Your task to perform on an android device: Search for lenovo thinkpad on costco, select the first entry, and add it to the cart. Image 0: 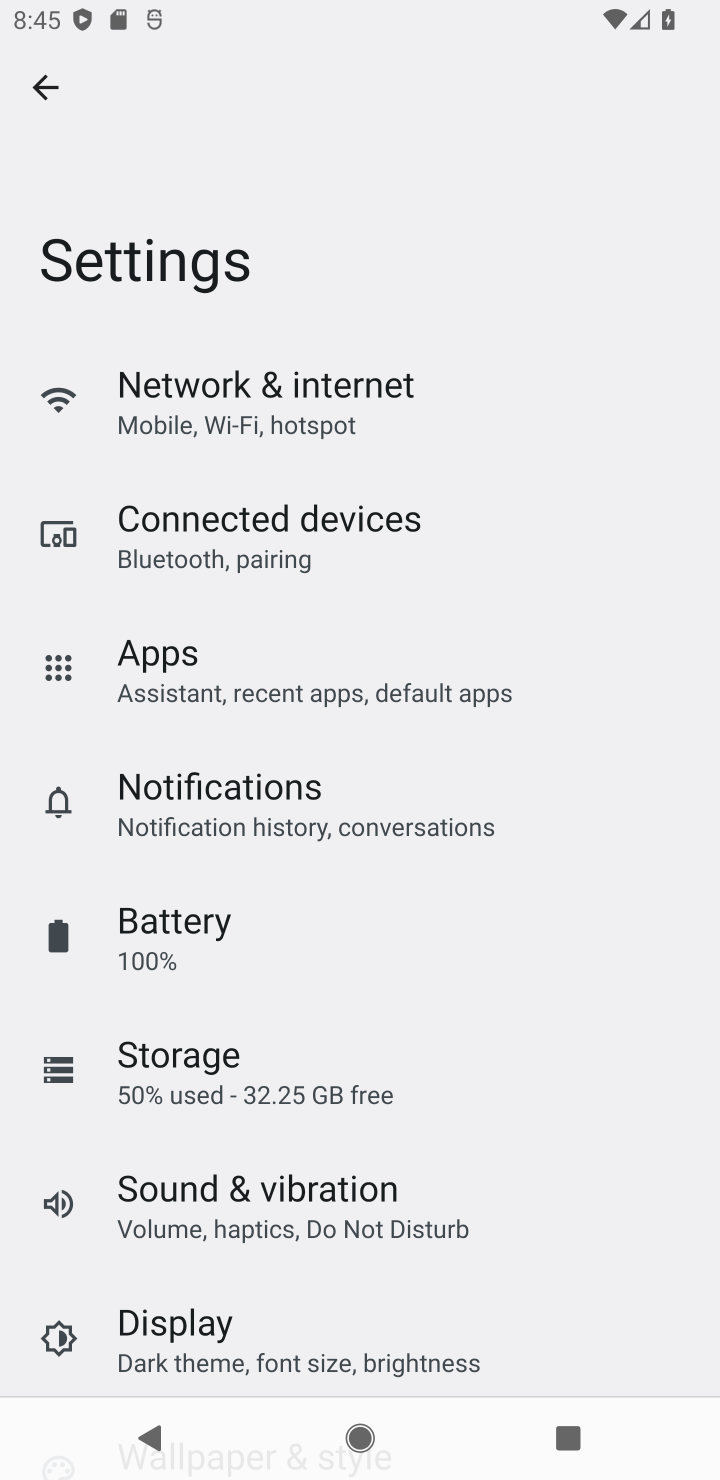
Step 0: press home button
Your task to perform on an android device: Search for lenovo thinkpad on costco, select the first entry, and add it to the cart. Image 1: 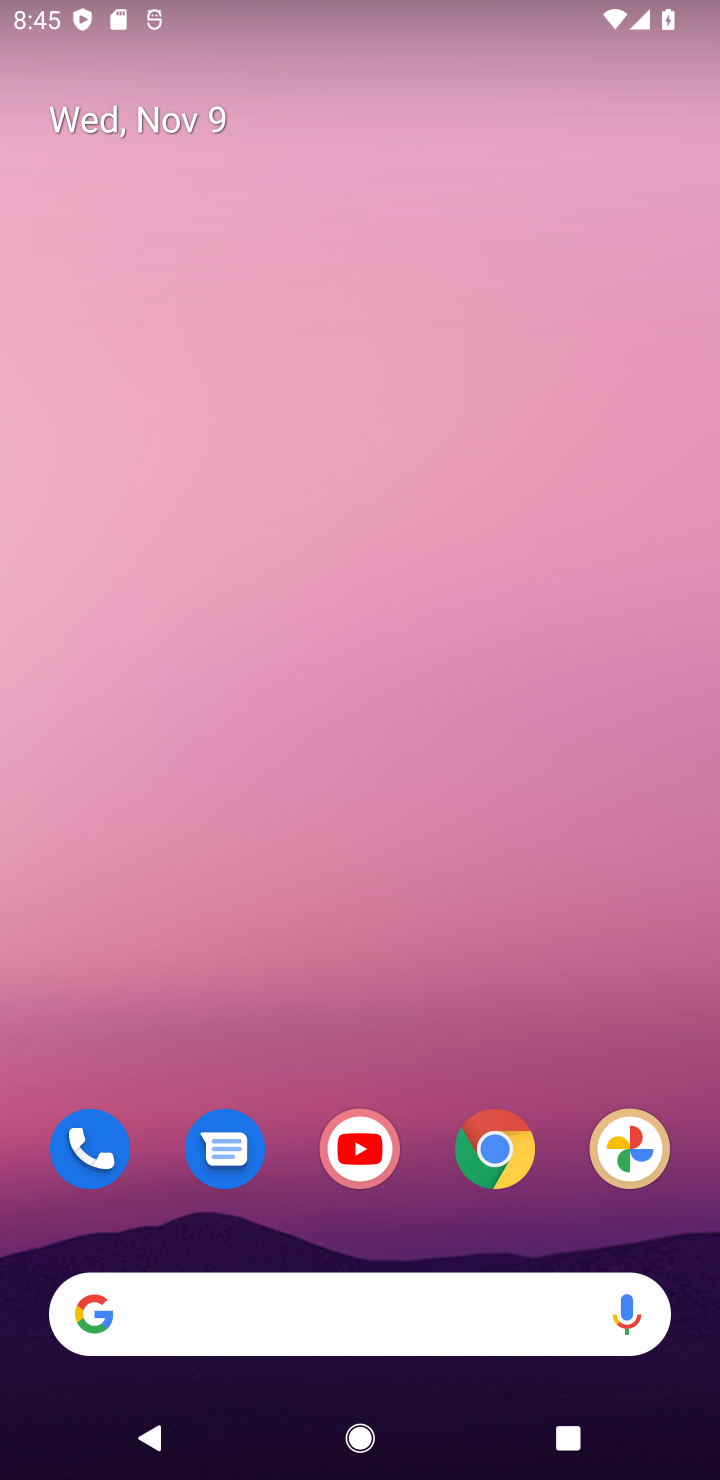
Step 1: click (503, 1148)
Your task to perform on an android device: Search for lenovo thinkpad on costco, select the first entry, and add it to the cart. Image 2: 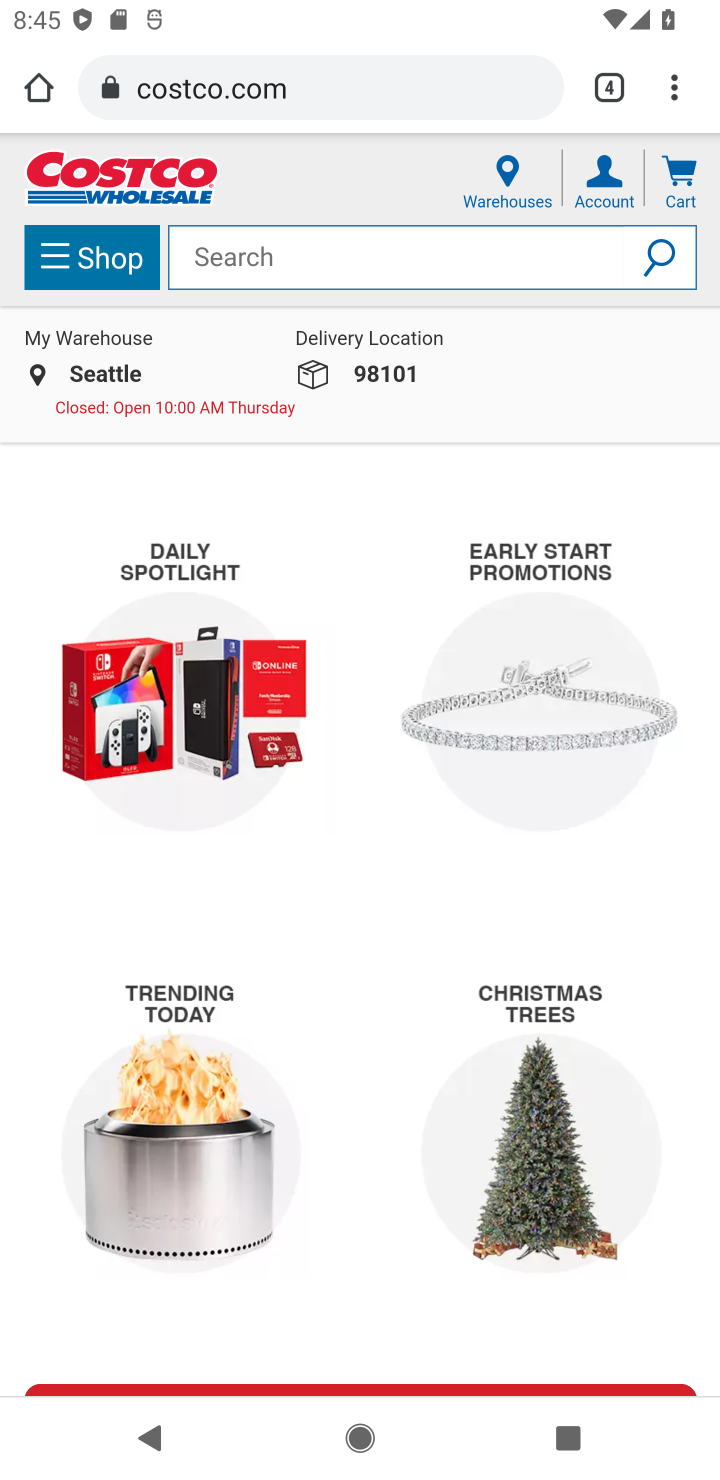
Step 2: click (341, 266)
Your task to perform on an android device: Search for lenovo thinkpad on costco, select the first entry, and add it to the cart. Image 3: 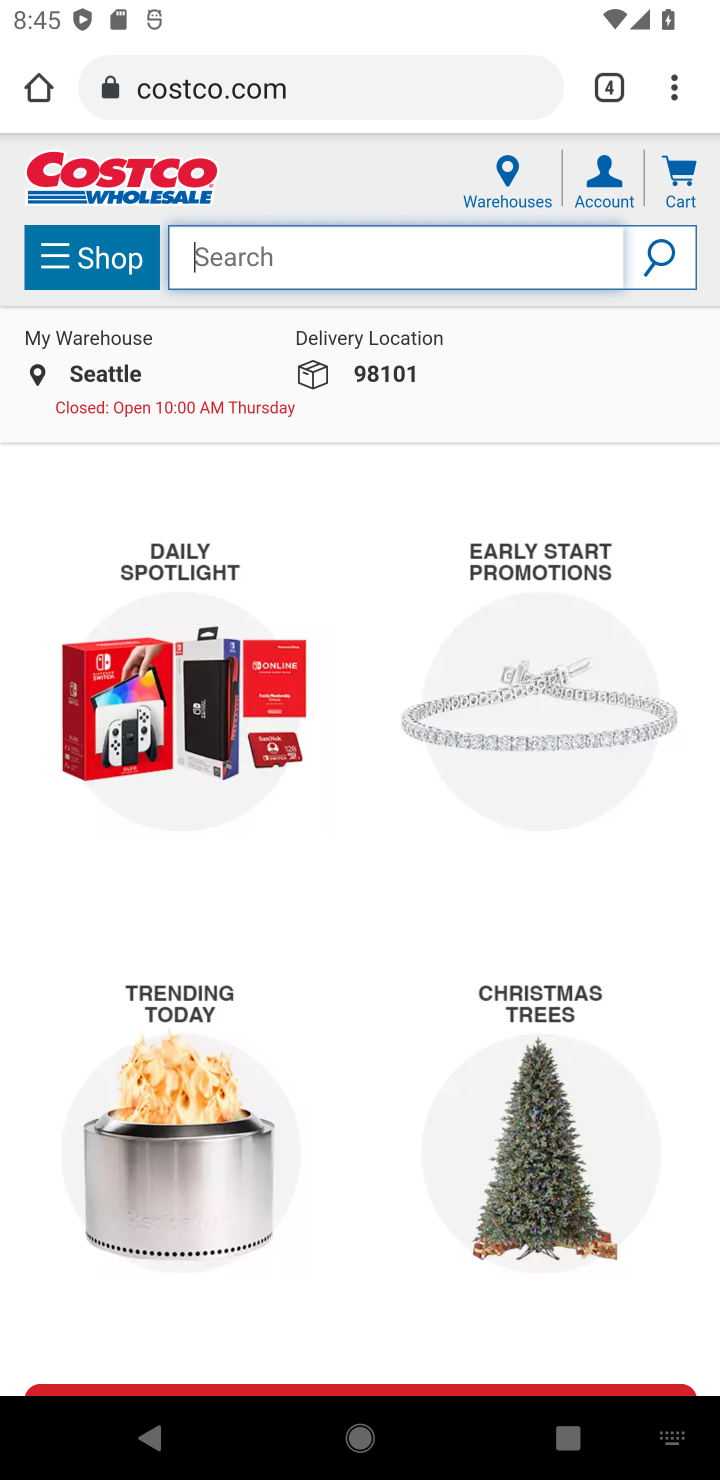
Step 3: type "lenovo thinkpad "
Your task to perform on an android device: Search for lenovo thinkpad on costco, select the first entry, and add it to the cart. Image 4: 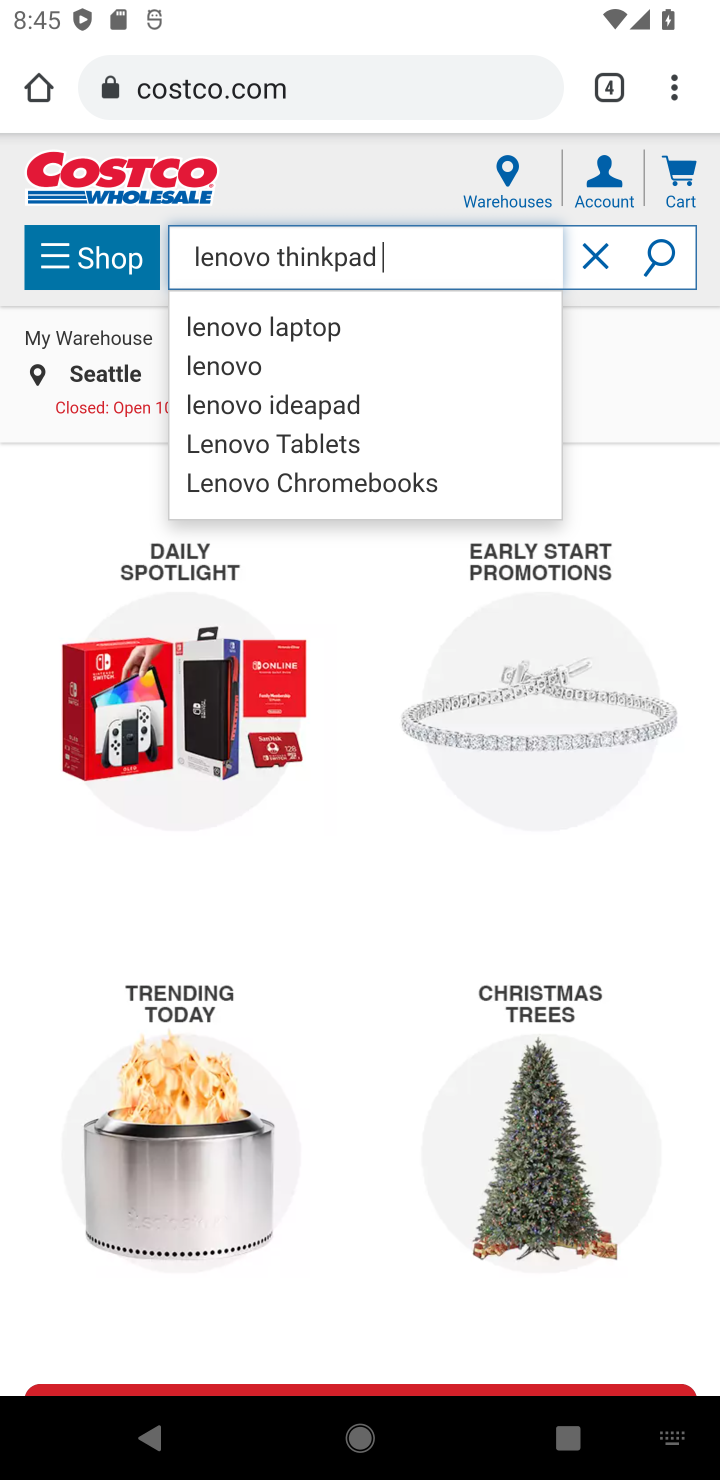
Step 4: click (669, 256)
Your task to perform on an android device: Search for lenovo thinkpad on costco, select the first entry, and add it to the cart. Image 5: 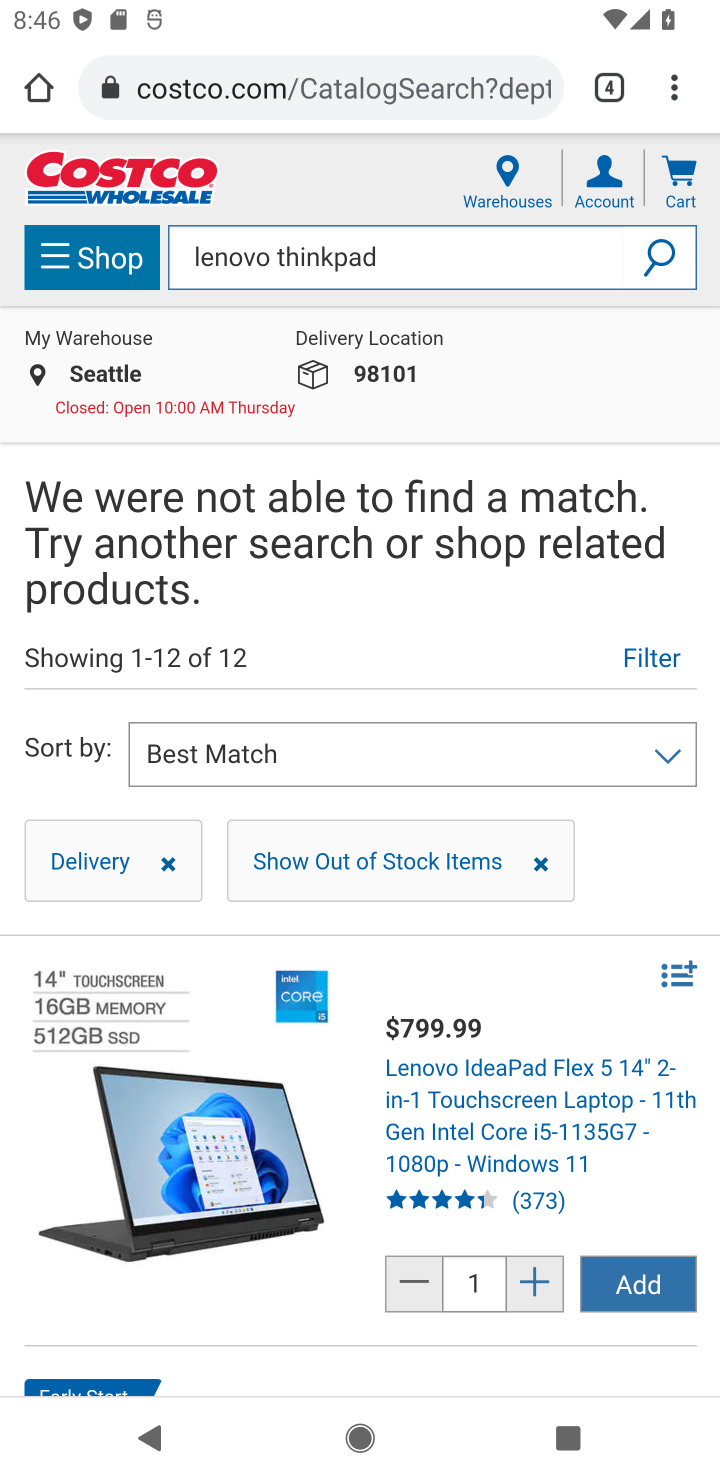
Step 5: click (653, 1298)
Your task to perform on an android device: Search for lenovo thinkpad on costco, select the first entry, and add it to the cart. Image 6: 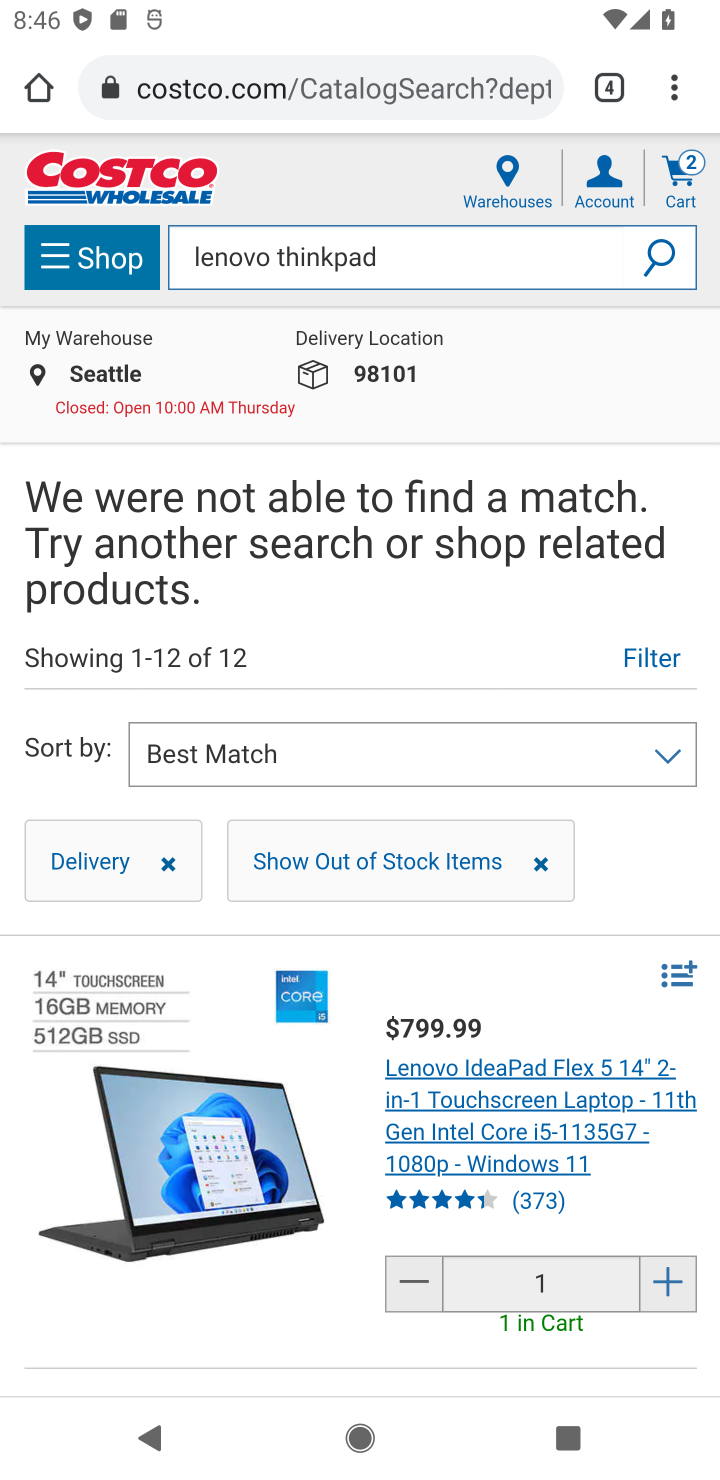
Step 6: task complete